Your task to perform on an android device: Open privacy settings Image 0: 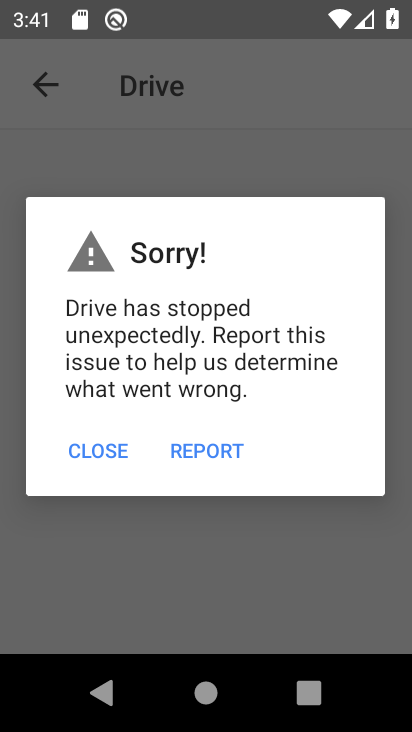
Step 0: press home button
Your task to perform on an android device: Open privacy settings Image 1: 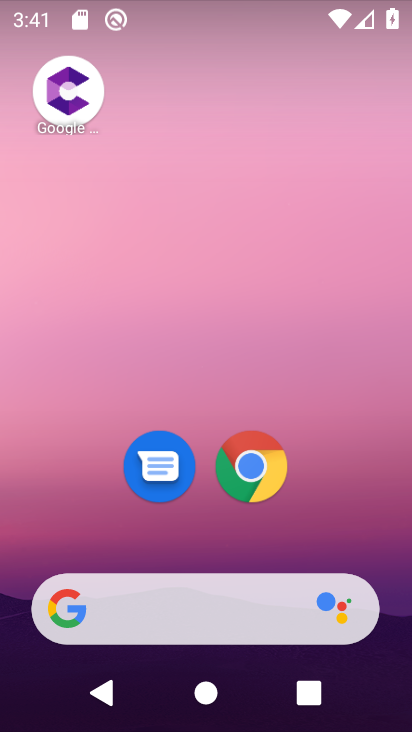
Step 1: drag from (248, 513) to (257, 65)
Your task to perform on an android device: Open privacy settings Image 2: 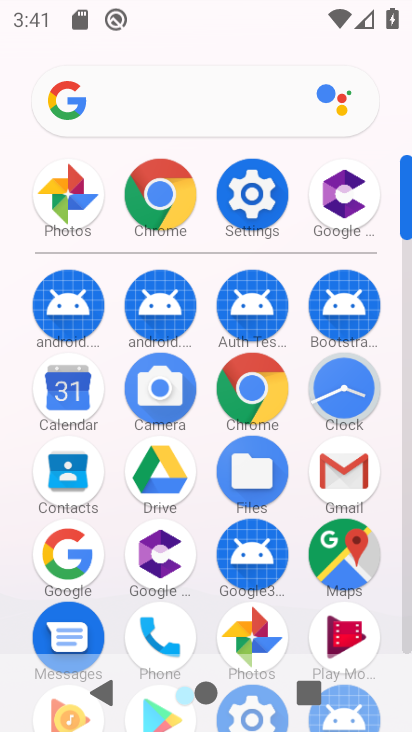
Step 2: click (245, 191)
Your task to perform on an android device: Open privacy settings Image 3: 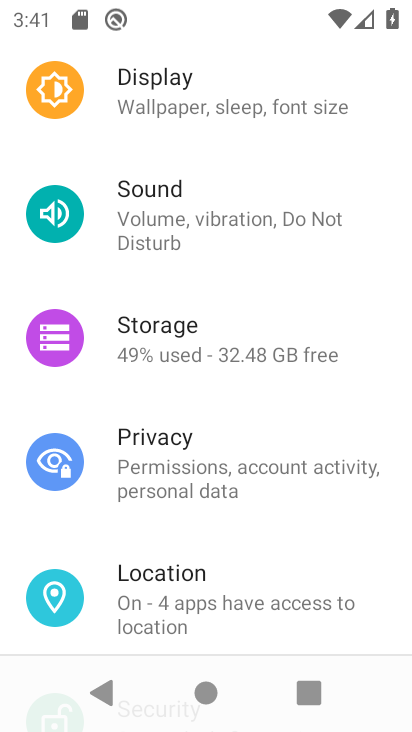
Step 3: click (140, 449)
Your task to perform on an android device: Open privacy settings Image 4: 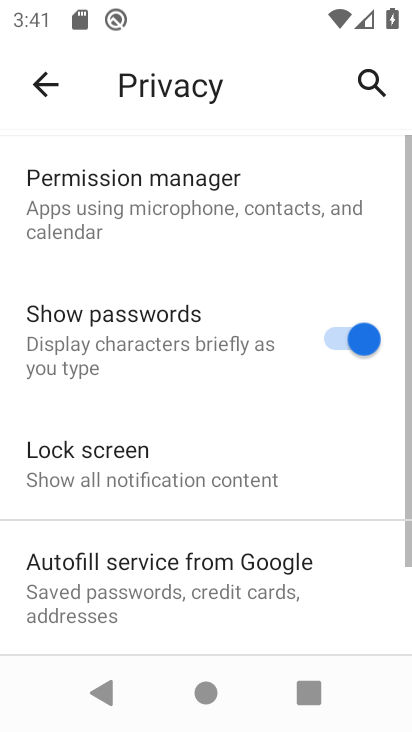
Step 4: task complete